Your task to perform on an android device: Set the phone to "Do not disturb". Image 0: 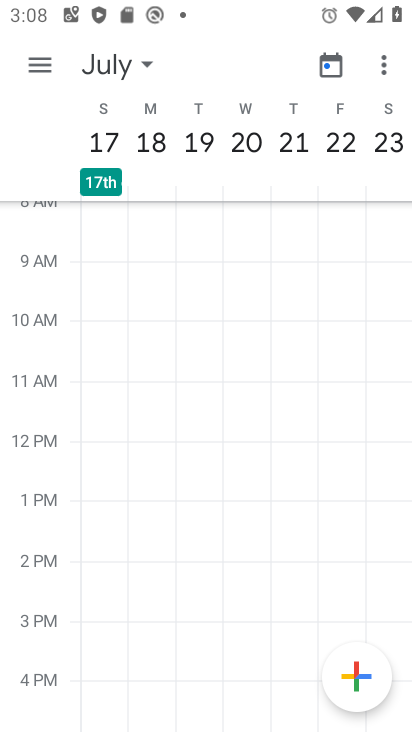
Step 0: press home button
Your task to perform on an android device: Set the phone to "Do not disturb". Image 1: 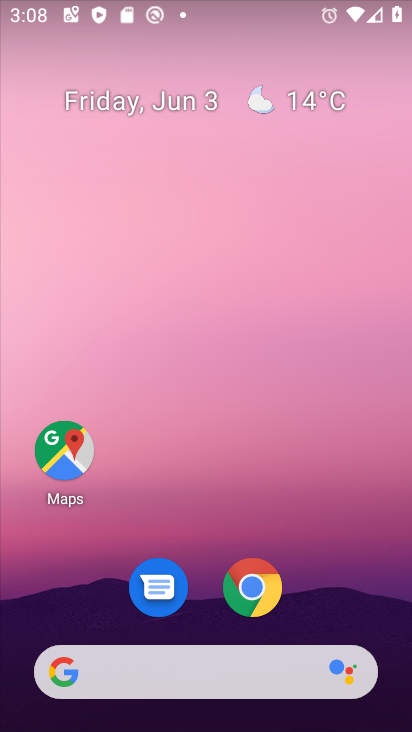
Step 1: drag from (235, 727) to (182, 279)
Your task to perform on an android device: Set the phone to "Do not disturb". Image 2: 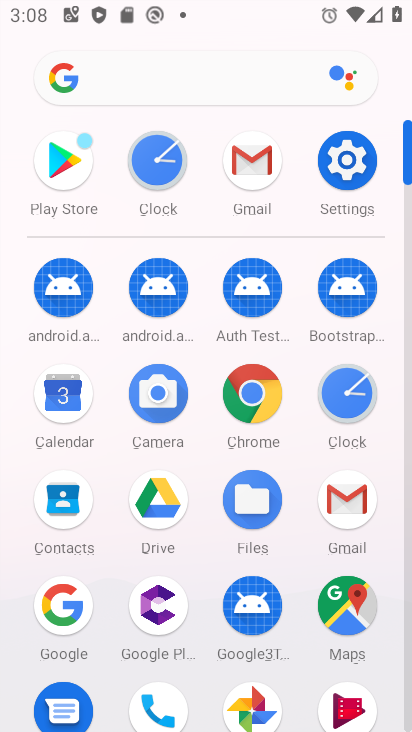
Step 2: click (350, 168)
Your task to perform on an android device: Set the phone to "Do not disturb". Image 3: 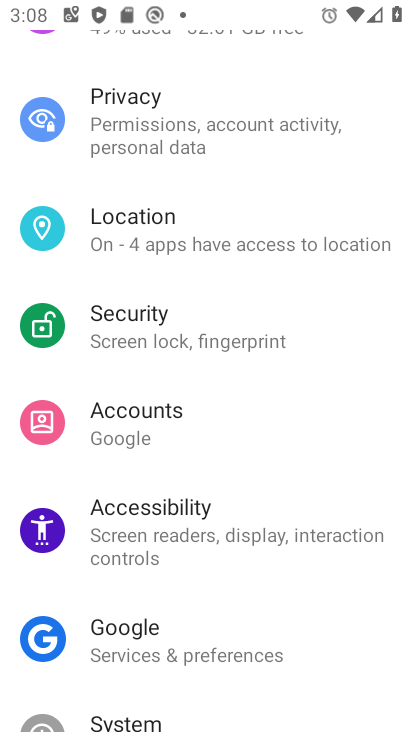
Step 3: drag from (183, 624) to (162, 348)
Your task to perform on an android device: Set the phone to "Do not disturb". Image 4: 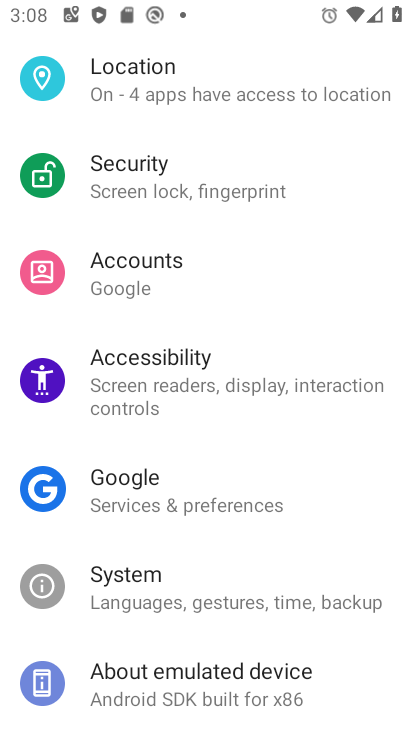
Step 4: drag from (194, 671) to (192, 285)
Your task to perform on an android device: Set the phone to "Do not disturb". Image 5: 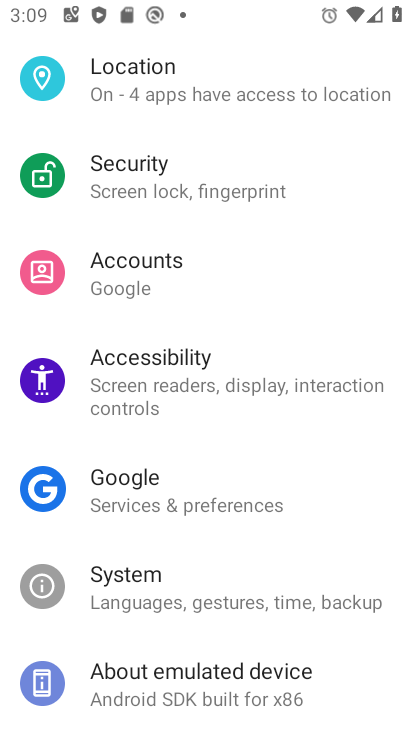
Step 5: drag from (218, 157) to (289, 499)
Your task to perform on an android device: Set the phone to "Do not disturb". Image 6: 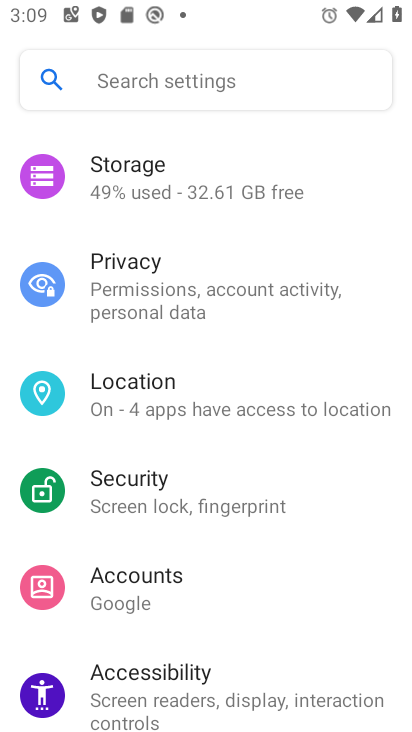
Step 6: drag from (213, 257) to (219, 557)
Your task to perform on an android device: Set the phone to "Do not disturb". Image 7: 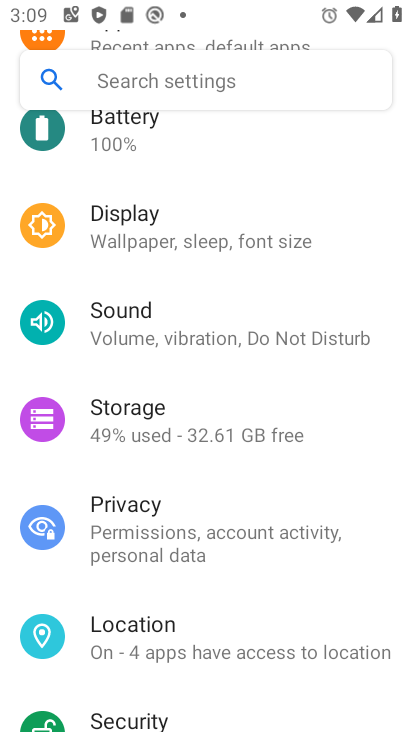
Step 7: click (203, 341)
Your task to perform on an android device: Set the phone to "Do not disturb". Image 8: 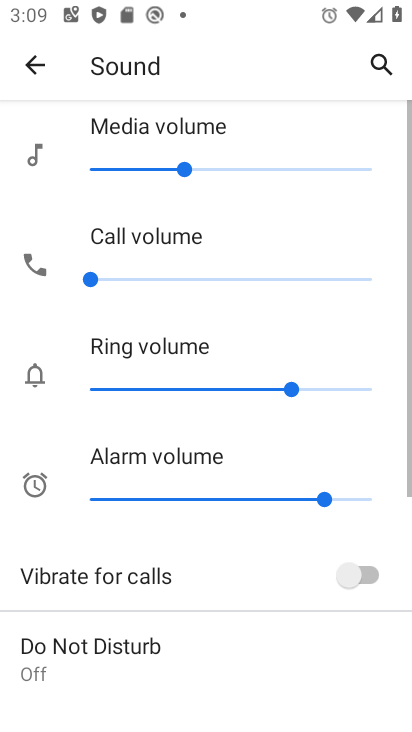
Step 8: drag from (154, 687) to (157, 467)
Your task to perform on an android device: Set the phone to "Do not disturb". Image 9: 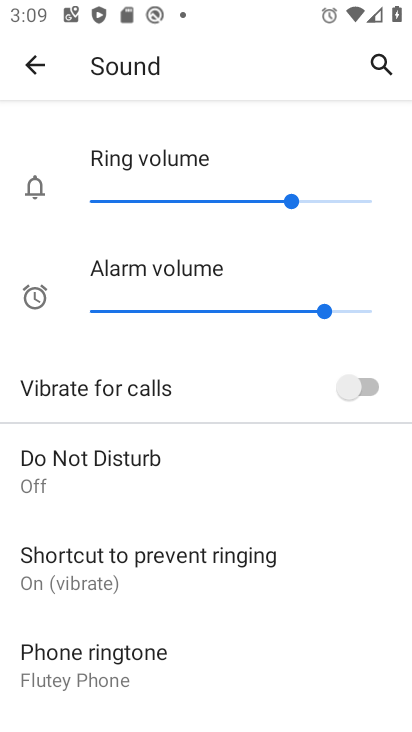
Step 9: click (70, 459)
Your task to perform on an android device: Set the phone to "Do not disturb". Image 10: 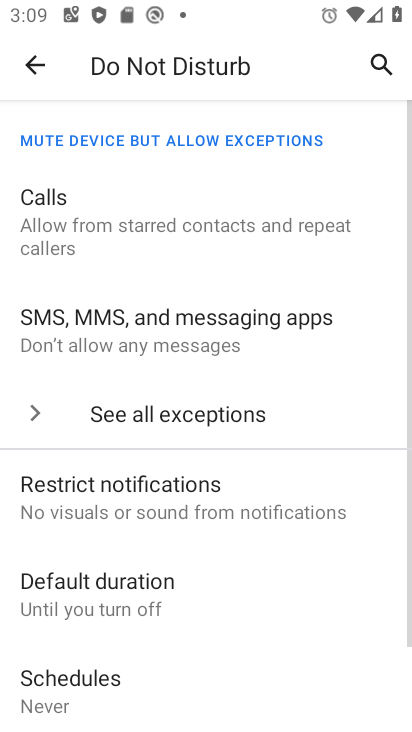
Step 10: drag from (193, 674) to (187, 445)
Your task to perform on an android device: Set the phone to "Do not disturb". Image 11: 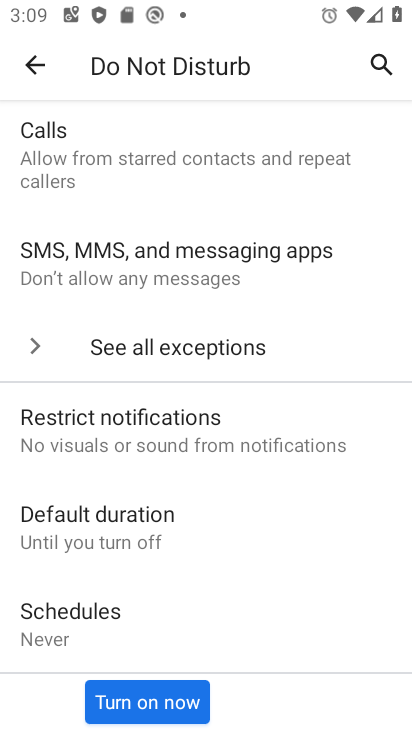
Step 11: click (187, 699)
Your task to perform on an android device: Set the phone to "Do not disturb". Image 12: 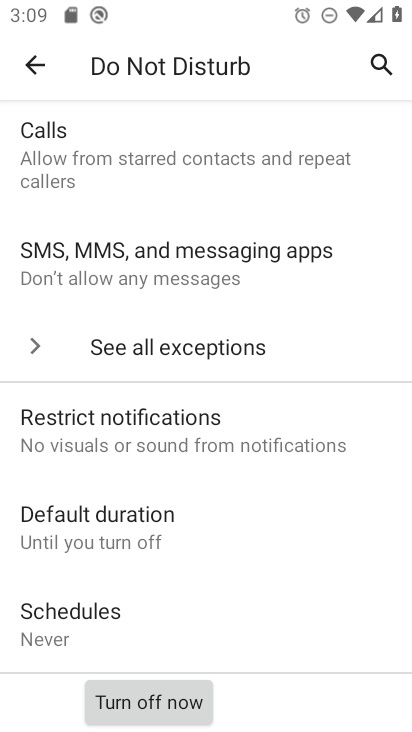
Step 12: task complete